Your task to perform on an android device: toggle priority inbox in the gmail app Image 0: 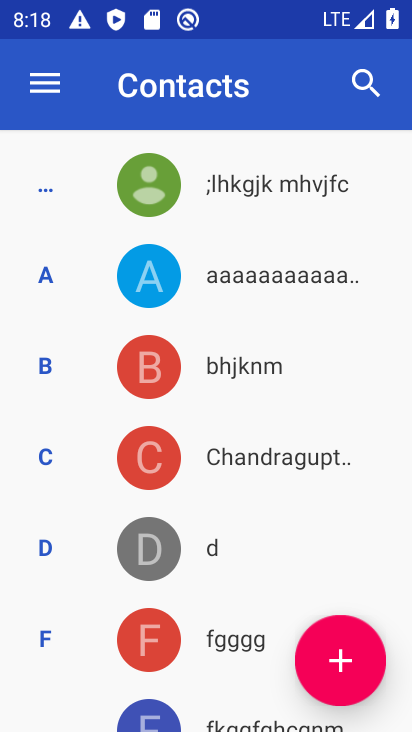
Step 0: press home button
Your task to perform on an android device: toggle priority inbox in the gmail app Image 1: 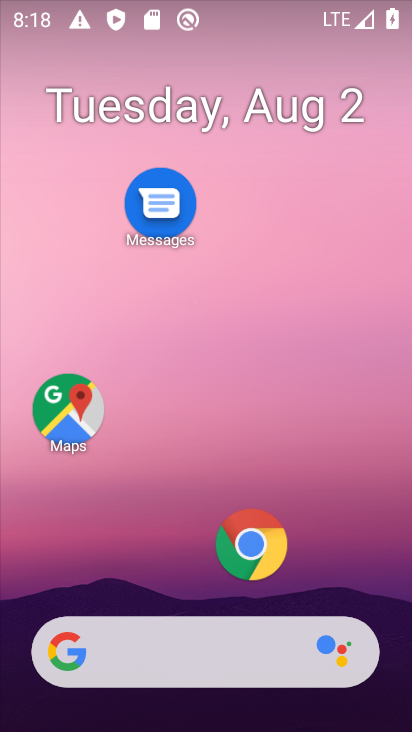
Step 1: drag from (189, 574) to (242, 89)
Your task to perform on an android device: toggle priority inbox in the gmail app Image 2: 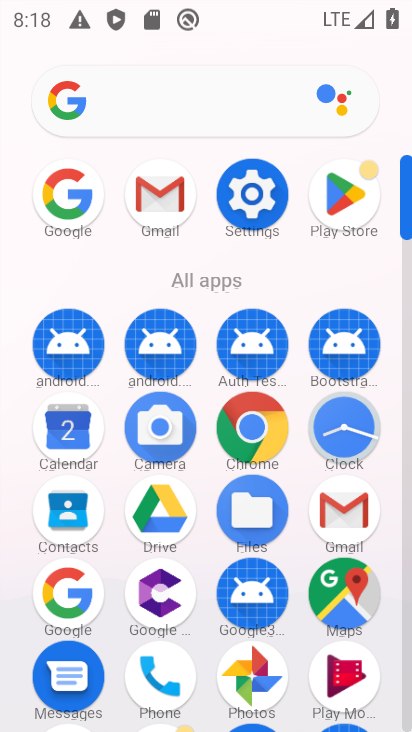
Step 2: click (190, 188)
Your task to perform on an android device: toggle priority inbox in the gmail app Image 3: 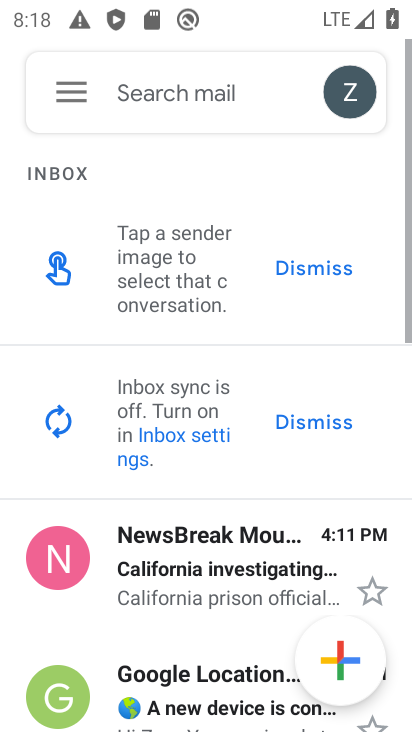
Step 3: click (65, 92)
Your task to perform on an android device: toggle priority inbox in the gmail app Image 4: 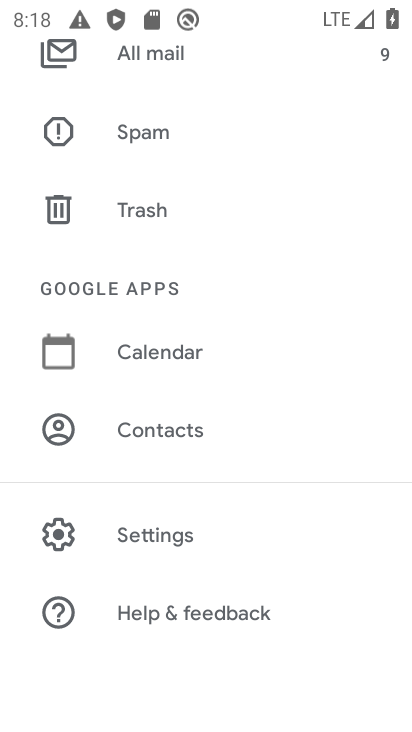
Step 4: click (128, 507)
Your task to perform on an android device: toggle priority inbox in the gmail app Image 5: 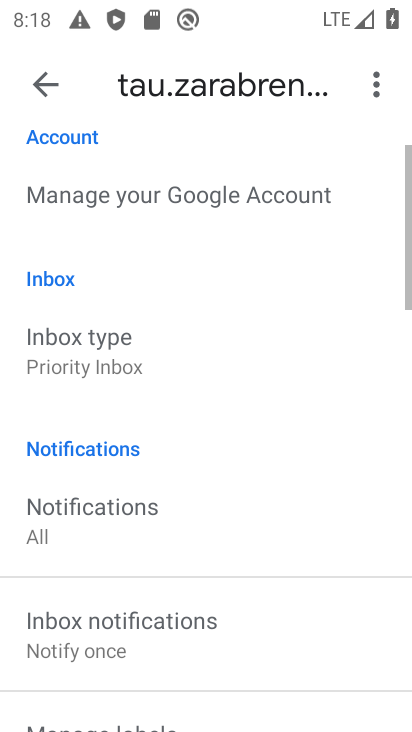
Step 5: click (130, 365)
Your task to perform on an android device: toggle priority inbox in the gmail app Image 6: 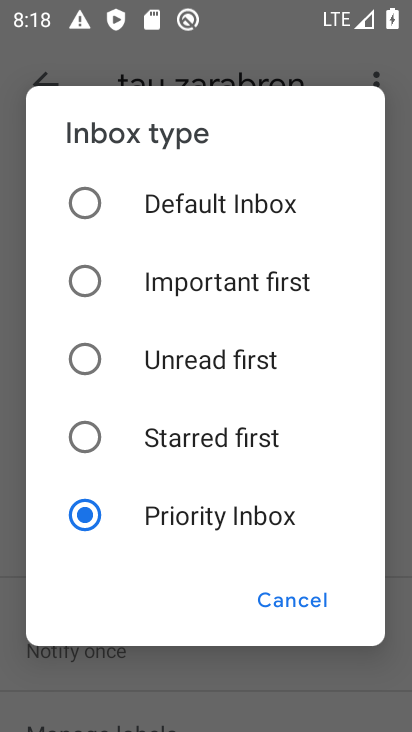
Step 6: click (133, 193)
Your task to perform on an android device: toggle priority inbox in the gmail app Image 7: 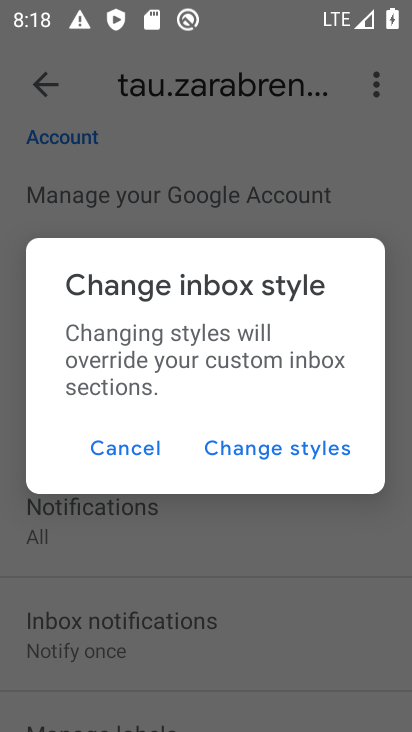
Step 7: click (288, 443)
Your task to perform on an android device: toggle priority inbox in the gmail app Image 8: 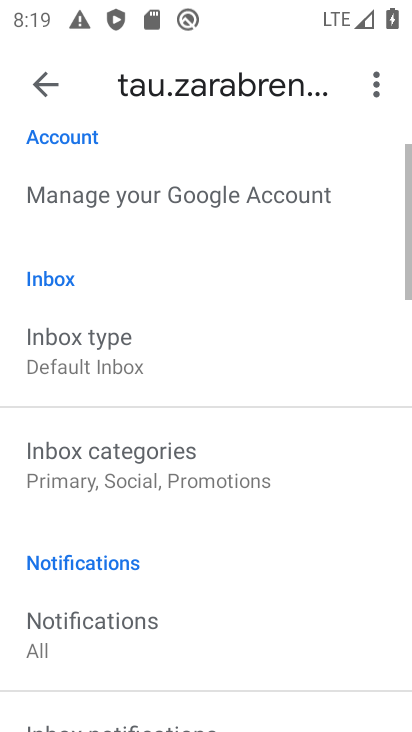
Step 8: task complete